Your task to perform on an android device: Is it going to rain tomorrow? Image 0: 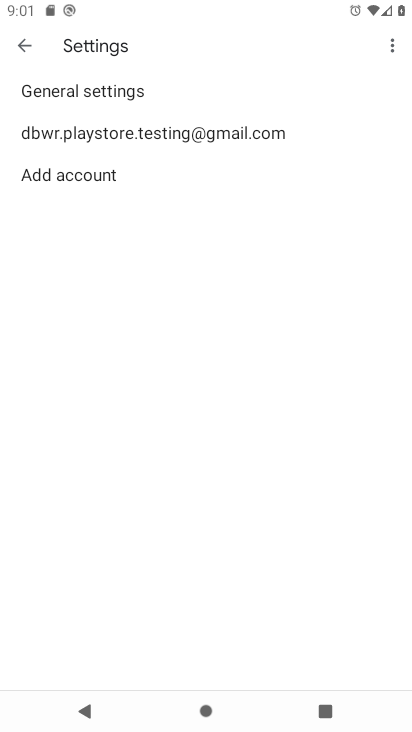
Step 0: press home button
Your task to perform on an android device: Is it going to rain tomorrow? Image 1: 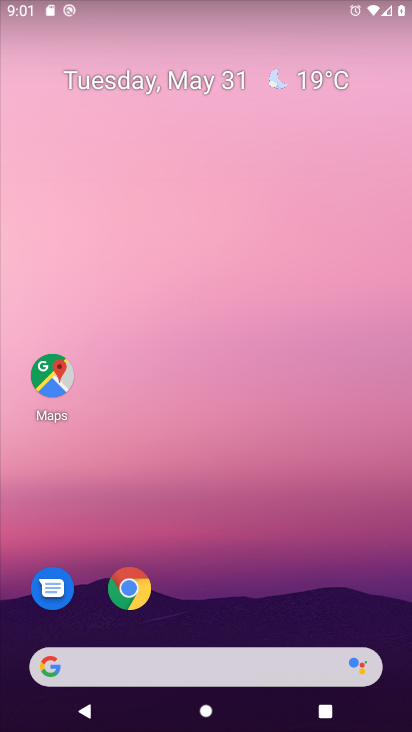
Step 1: click (310, 76)
Your task to perform on an android device: Is it going to rain tomorrow? Image 2: 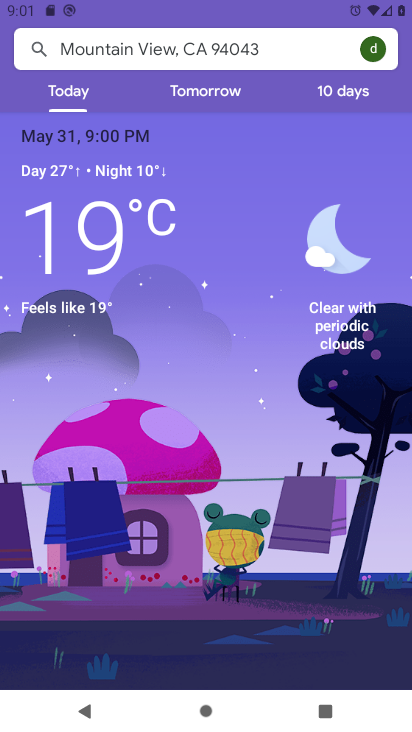
Step 2: click (200, 96)
Your task to perform on an android device: Is it going to rain tomorrow? Image 3: 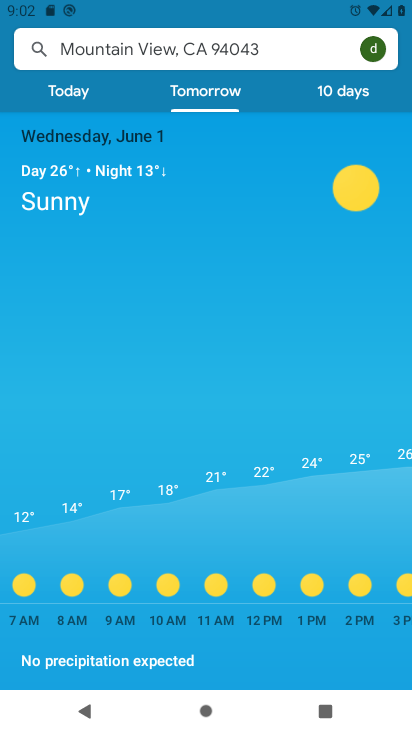
Step 3: task complete